Your task to perform on an android device: empty trash in the gmail app Image 0: 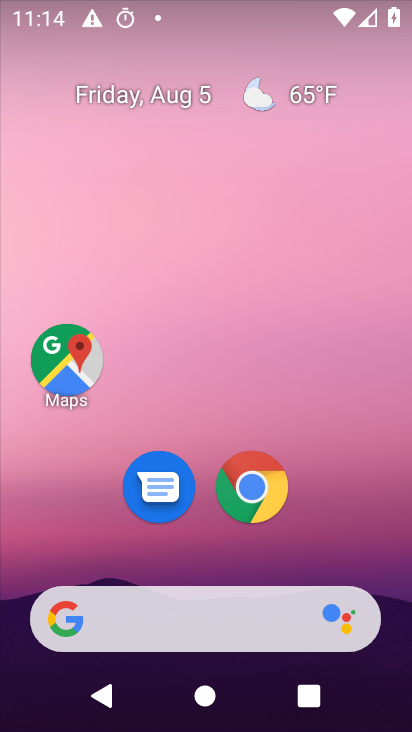
Step 0: drag from (174, 537) to (317, 44)
Your task to perform on an android device: empty trash in the gmail app Image 1: 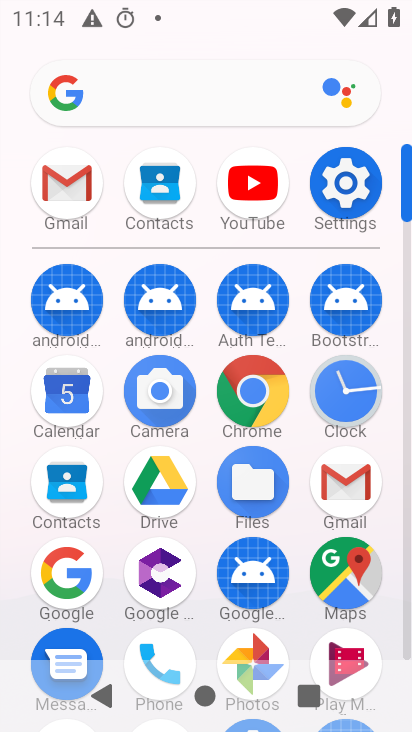
Step 1: click (79, 180)
Your task to perform on an android device: empty trash in the gmail app Image 2: 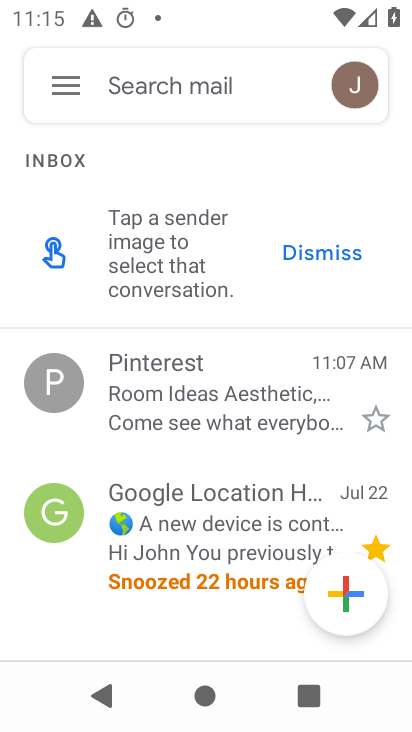
Step 2: click (72, 75)
Your task to perform on an android device: empty trash in the gmail app Image 3: 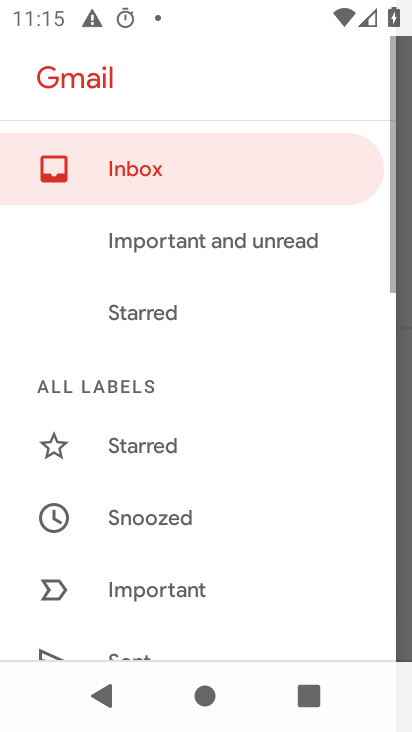
Step 3: drag from (222, 610) to (295, 145)
Your task to perform on an android device: empty trash in the gmail app Image 4: 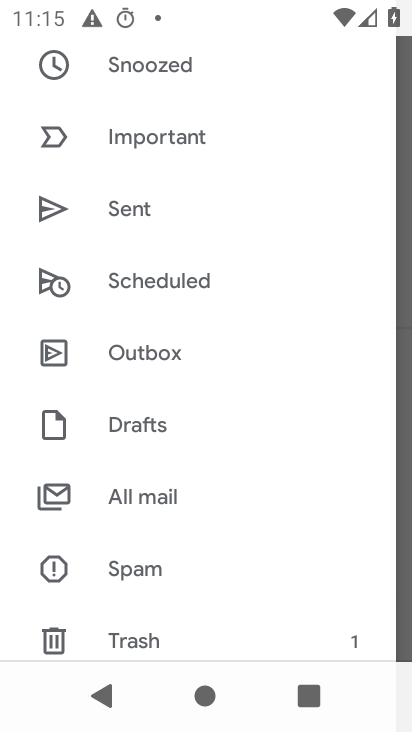
Step 4: click (131, 654)
Your task to perform on an android device: empty trash in the gmail app Image 5: 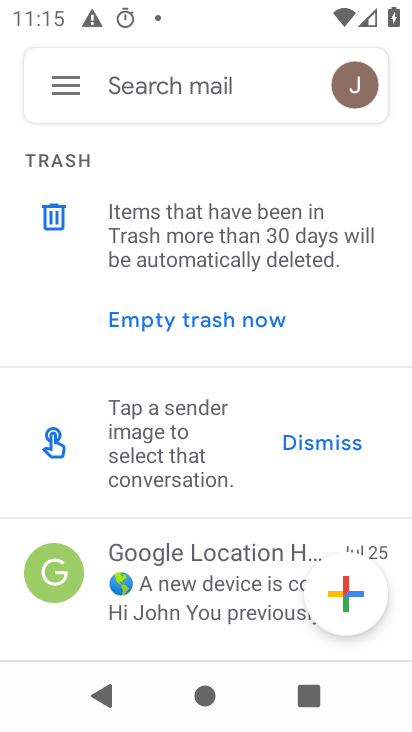
Step 5: click (199, 320)
Your task to perform on an android device: empty trash in the gmail app Image 6: 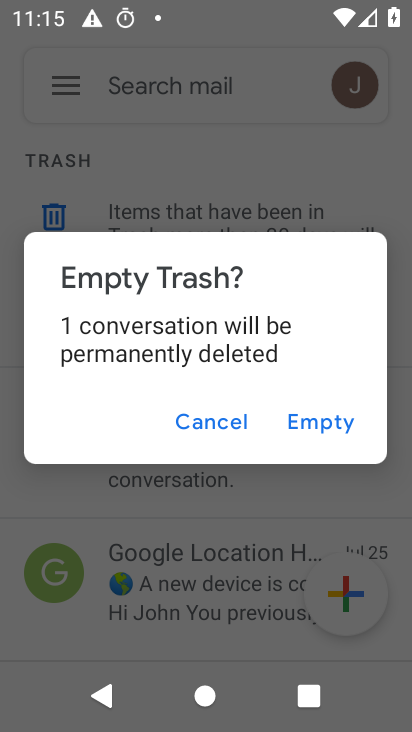
Step 6: click (338, 416)
Your task to perform on an android device: empty trash in the gmail app Image 7: 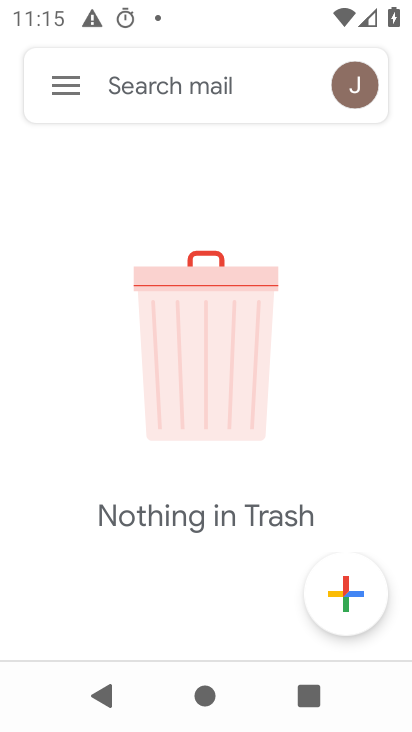
Step 7: task complete